Your task to perform on an android device: check data usage Image 0: 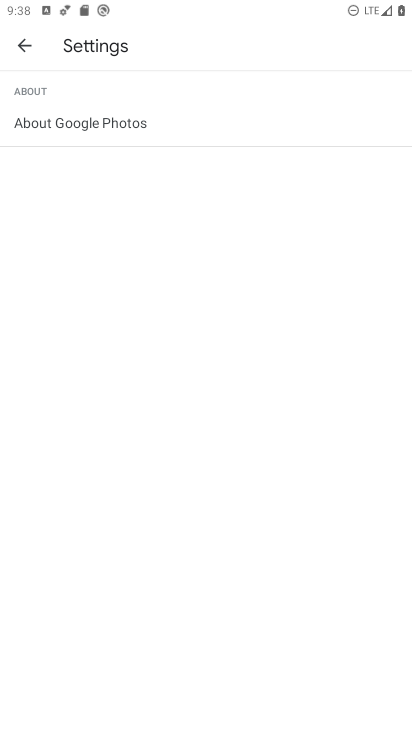
Step 0: press home button
Your task to perform on an android device: check data usage Image 1: 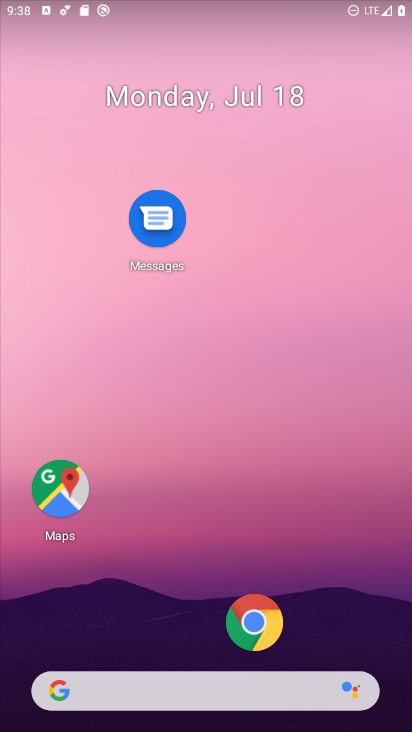
Step 1: drag from (288, 676) to (272, 189)
Your task to perform on an android device: check data usage Image 2: 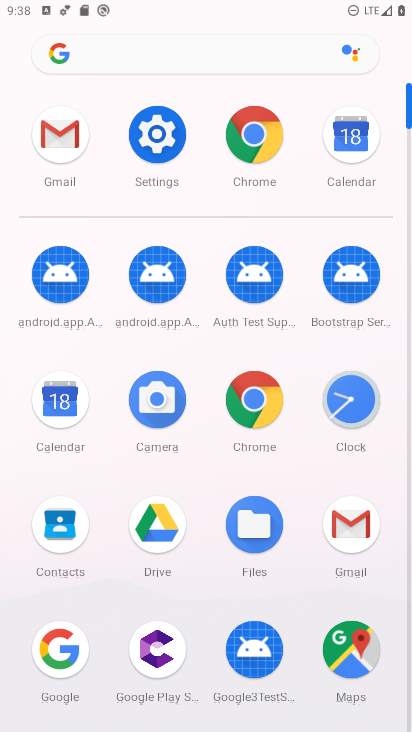
Step 2: click (158, 163)
Your task to perform on an android device: check data usage Image 3: 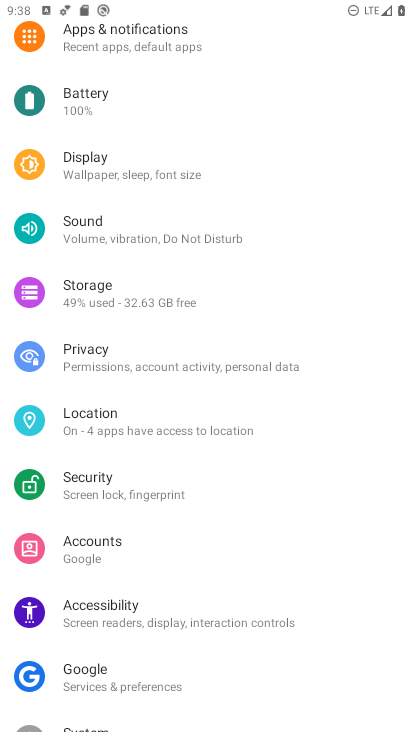
Step 3: drag from (200, 126) to (216, 650)
Your task to perform on an android device: check data usage Image 4: 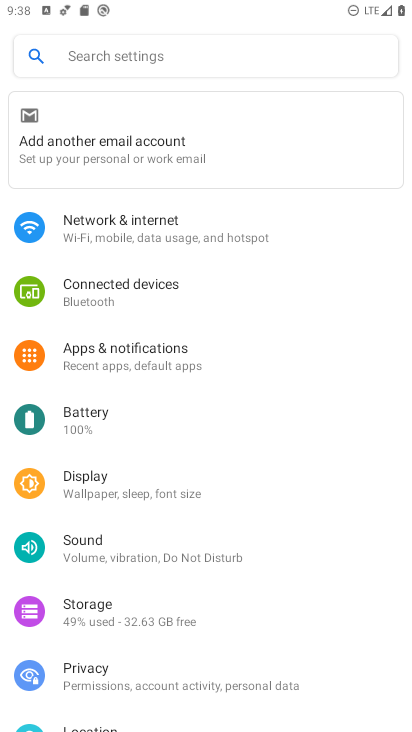
Step 4: click (206, 240)
Your task to perform on an android device: check data usage Image 5: 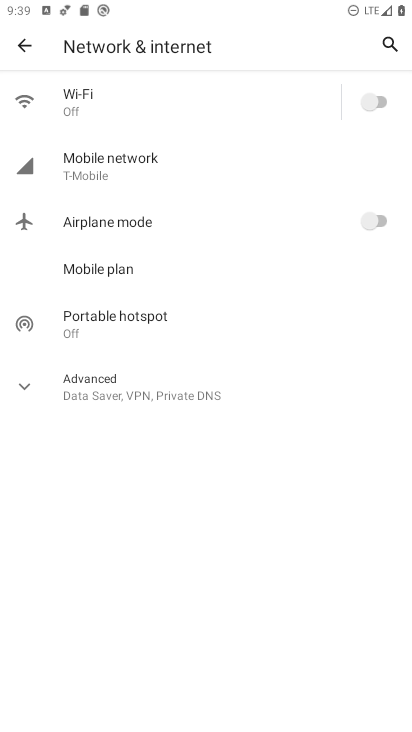
Step 5: click (135, 170)
Your task to perform on an android device: check data usage Image 6: 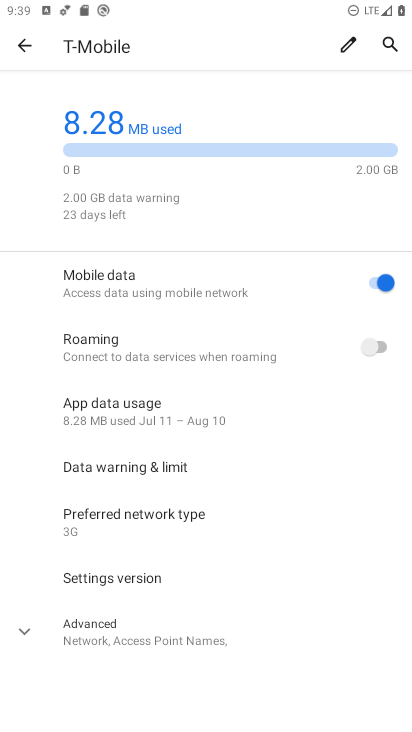
Step 6: click (127, 417)
Your task to perform on an android device: check data usage Image 7: 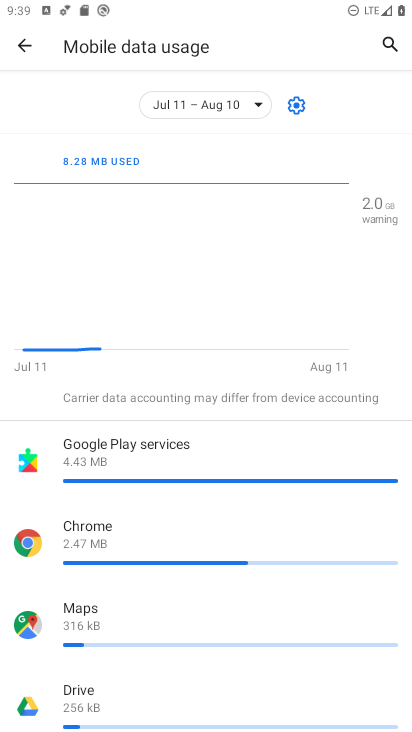
Step 7: task complete